Your task to perform on an android device: Who is the president of the United States? Image 0: 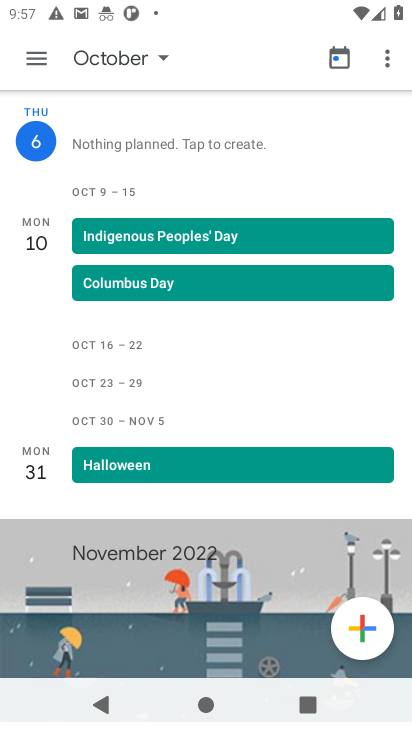
Step 0: press home button
Your task to perform on an android device: Who is the president of the United States? Image 1: 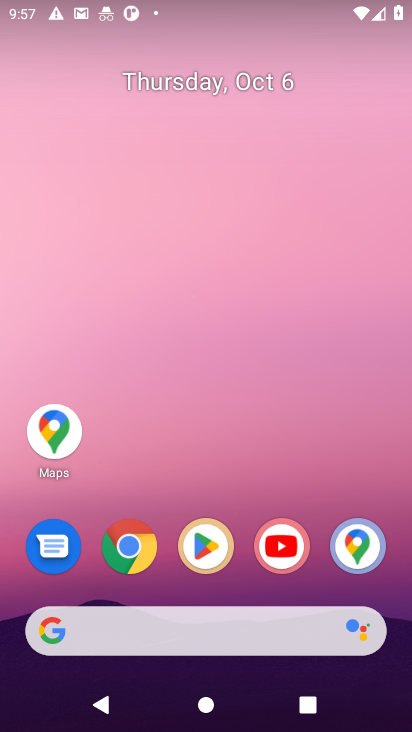
Step 1: click (131, 546)
Your task to perform on an android device: Who is the president of the United States? Image 2: 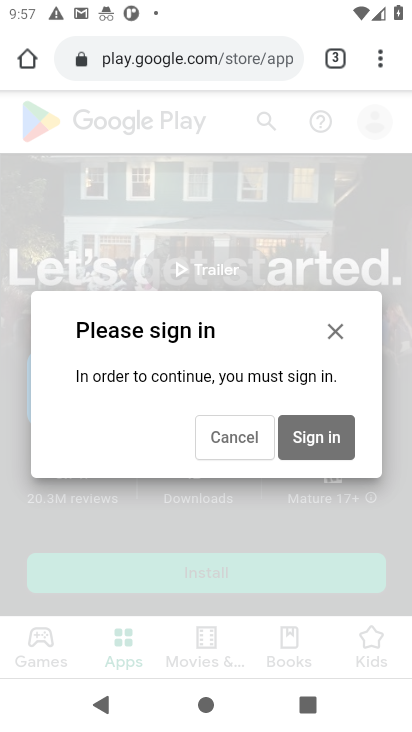
Step 2: click (333, 328)
Your task to perform on an android device: Who is the president of the United States? Image 3: 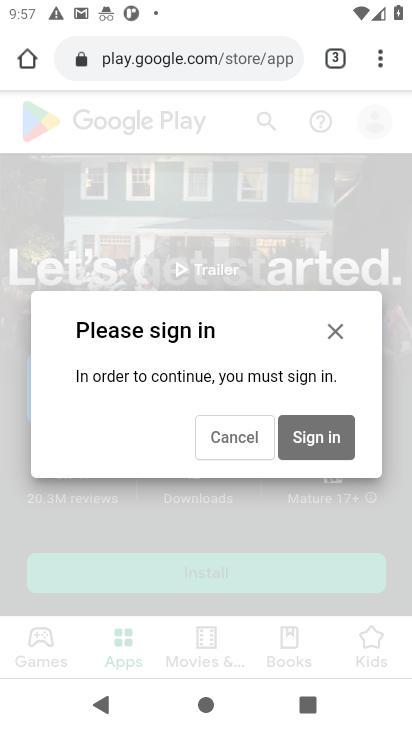
Step 3: click (189, 41)
Your task to perform on an android device: Who is the president of the United States? Image 4: 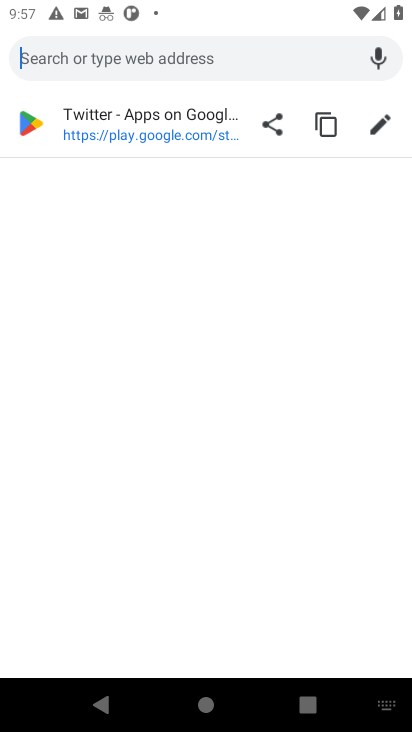
Step 4: type "president of USA"
Your task to perform on an android device: Who is the president of the United States? Image 5: 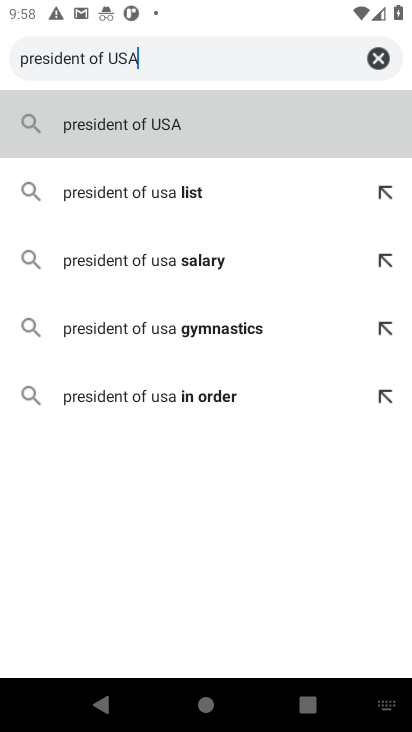
Step 5: click (143, 128)
Your task to perform on an android device: Who is the president of the United States? Image 6: 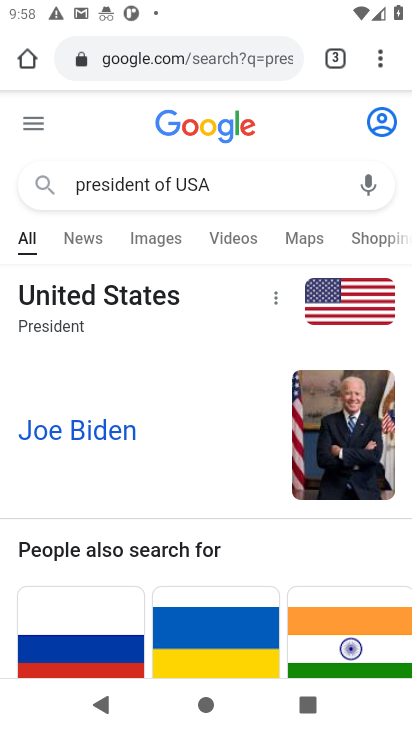
Step 6: task complete